Your task to perform on an android device: Open Yahoo.com Image 0: 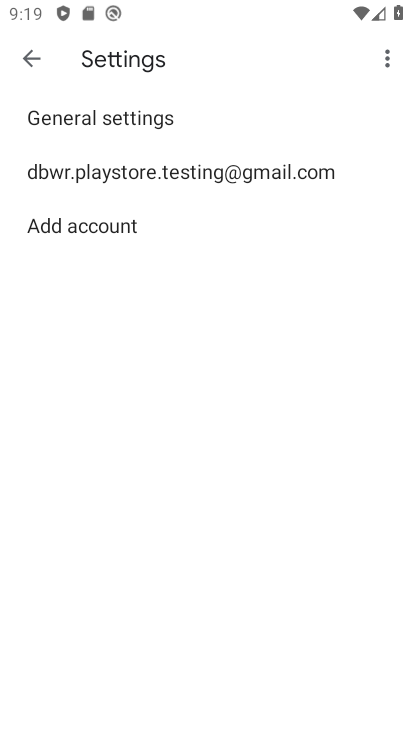
Step 0: press home button
Your task to perform on an android device: Open Yahoo.com Image 1: 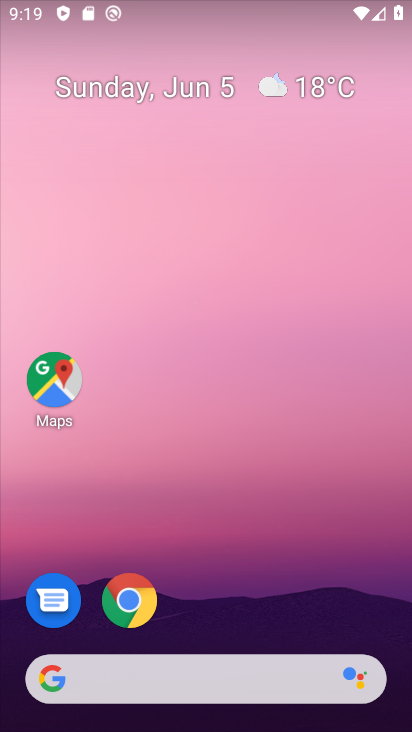
Step 1: click (125, 605)
Your task to perform on an android device: Open Yahoo.com Image 2: 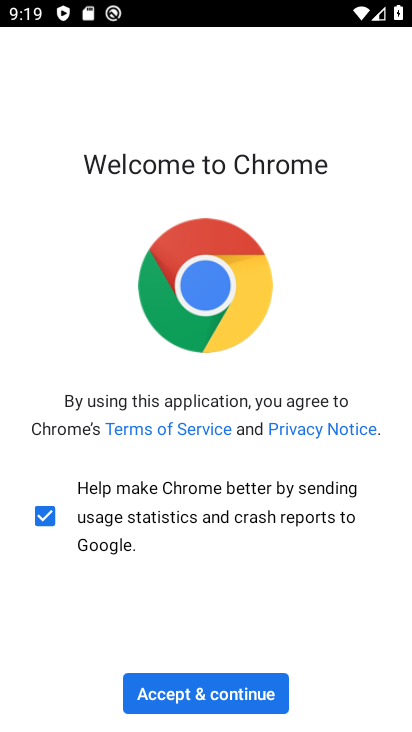
Step 2: click (224, 679)
Your task to perform on an android device: Open Yahoo.com Image 3: 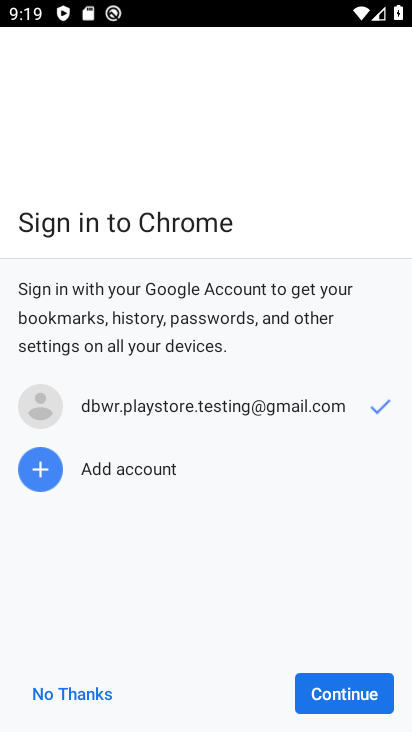
Step 3: click (358, 699)
Your task to perform on an android device: Open Yahoo.com Image 4: 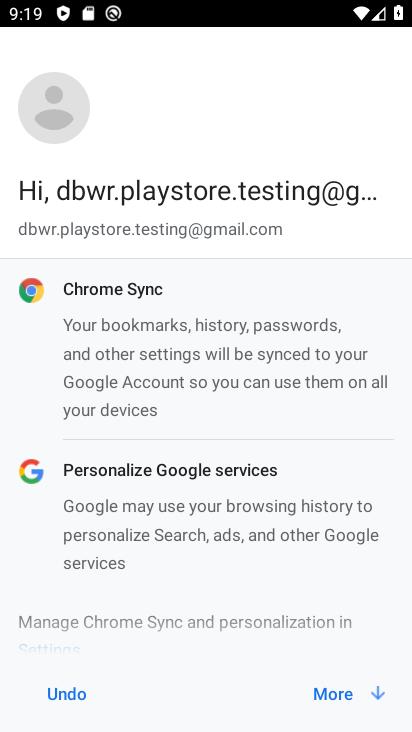
Step 4: click (390, 693)
Your task to perform on an android device: Open Yahoo.com Image 5: 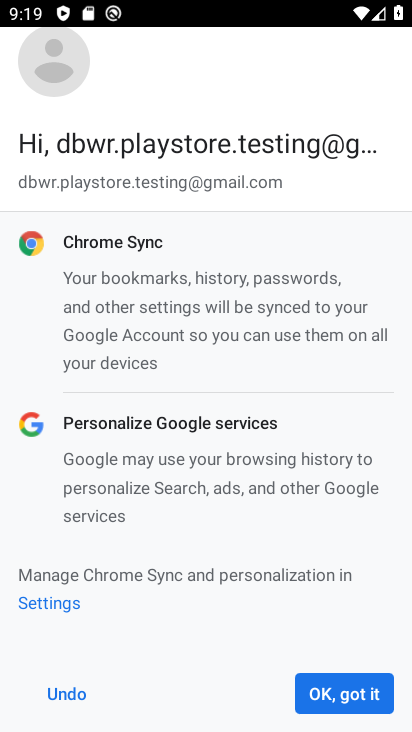
Step 5: click (321, 687)
Your task to perform on an android device: Open Yahoo.com Image 6: 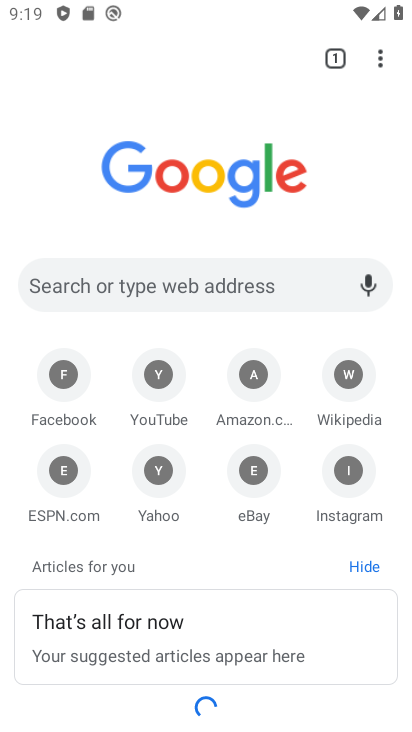
Step 6: click (178, 475)
Your task to perform on an android device: Open Yahoo.com Image 7: 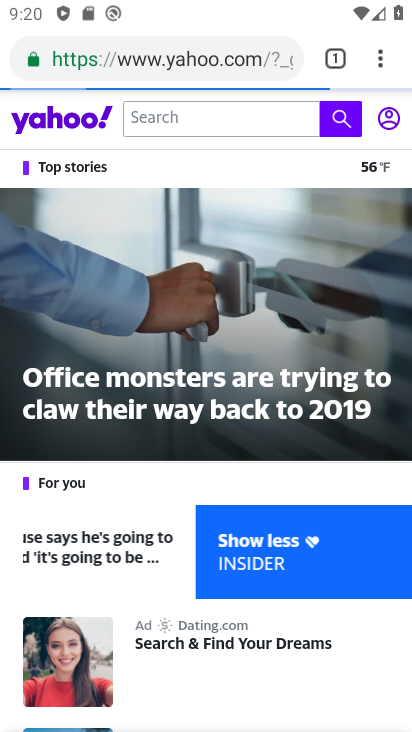
Step 7: task complete